Your task to perform on an android device: all mails in gmail Image 0: 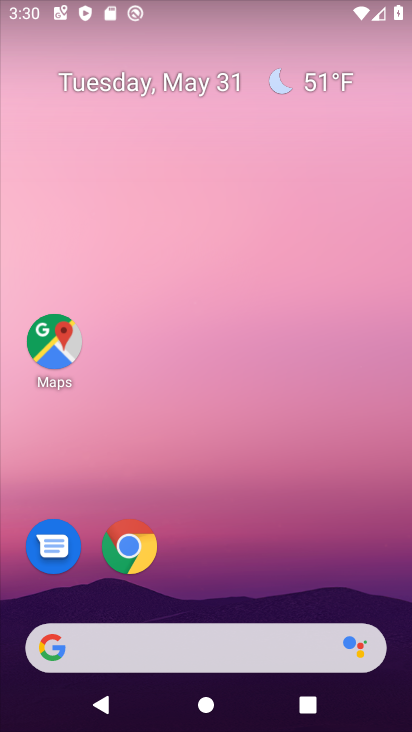
Step 0: drag from (201, 591) to (190, 172)
Your task to perform on an android device: all mails in gmail Image 1: 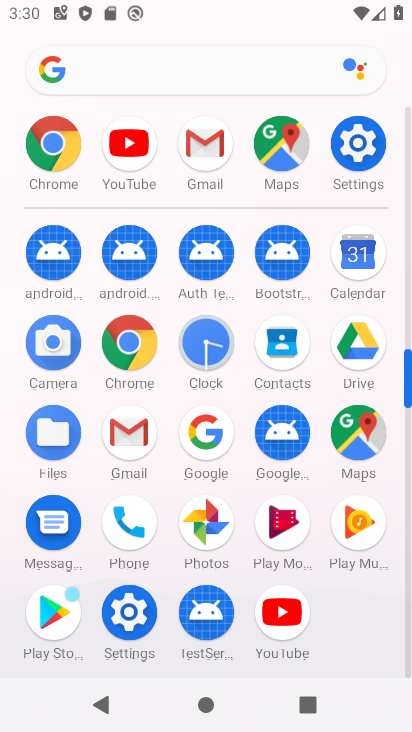
Step 1: click (205, 148)
Your task to perform on an android device: all mails in gmail Image 2: 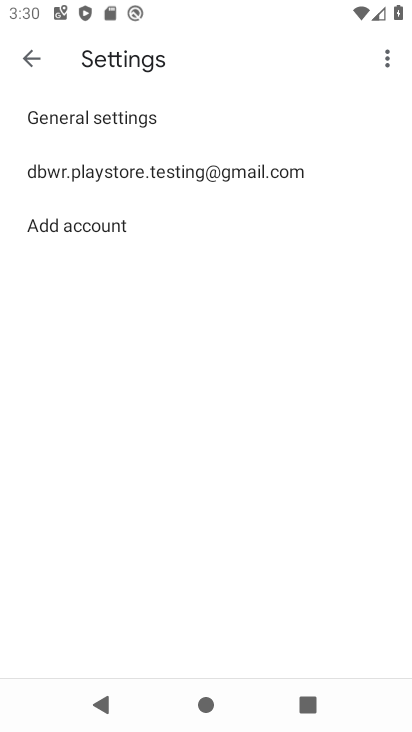
Step 2: click (190, 171)
Your task to perform on an android device: all mails in gmail Image 3: 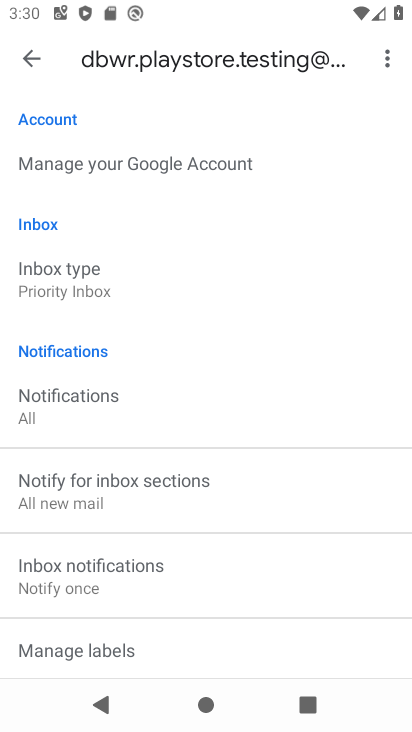
Step 3: click (23, 64)
Your task to perform on an android device: all mails in gmail Image 4: 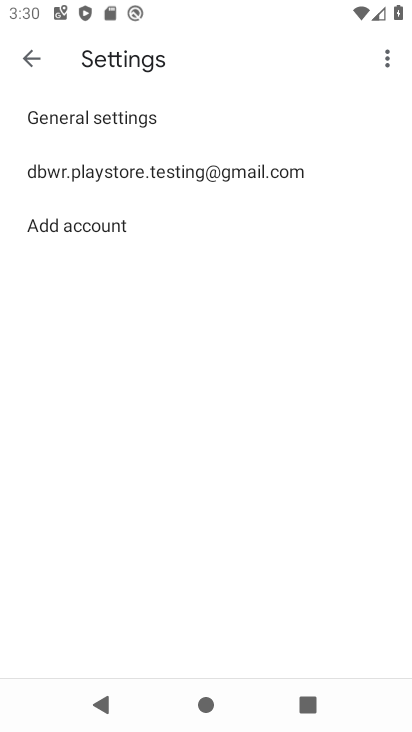
Step 4: click (30, 56)
Your task to perform on an android device: all mails in gmail Image 5: 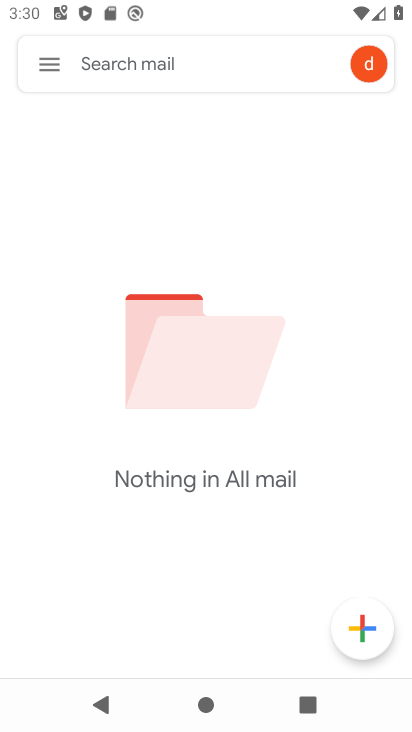
Step 5: task complete